Your task to perform on an android device: Open calendar and show me the second week of next month Image 0: 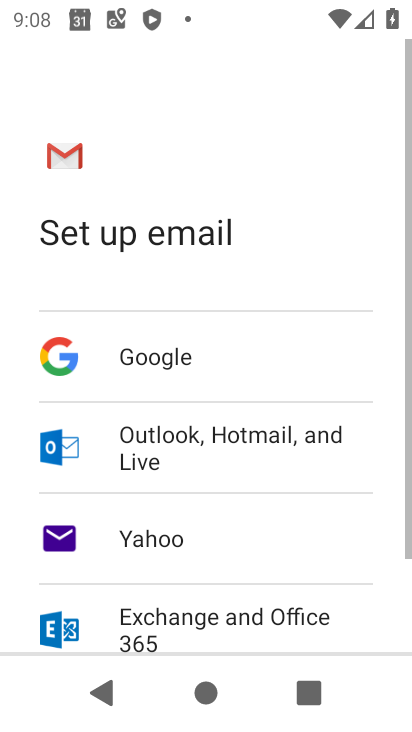
Step 0: press home button
Your task to perform on an android device: Open calendar and show me the second week of next month Image 1: 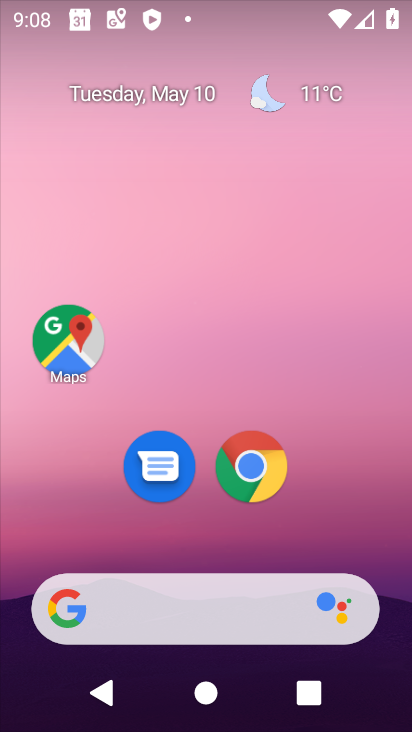
Step 1: drag from (341, 521) to (362, 58)
Your task to perform on an android device: Open calendar and show me the second week of next month Image 2: 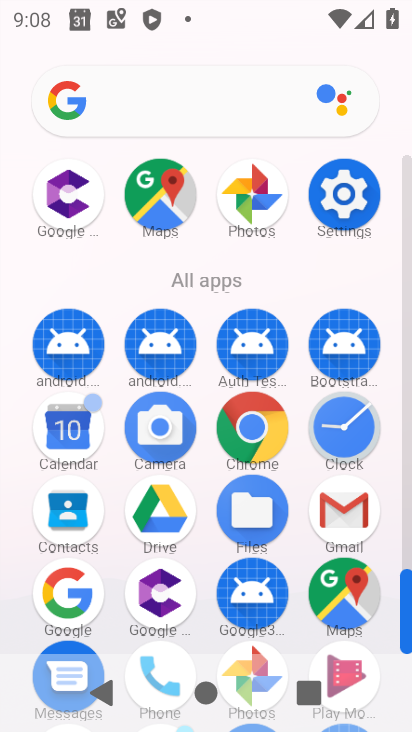
Step 2: click (338, 427)
Your task to perform on an android device: Open calendar and show me the second week of next month Image 3: 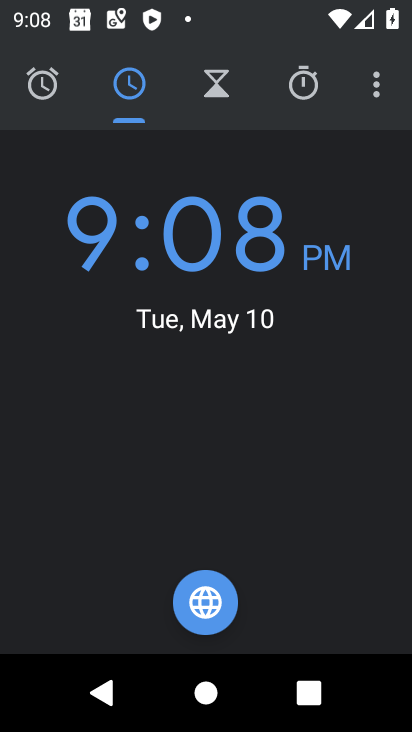
Step 3: click (378, 91)
Your task to perform on an android device: Open calendar and show me the second week of next month Image 4: 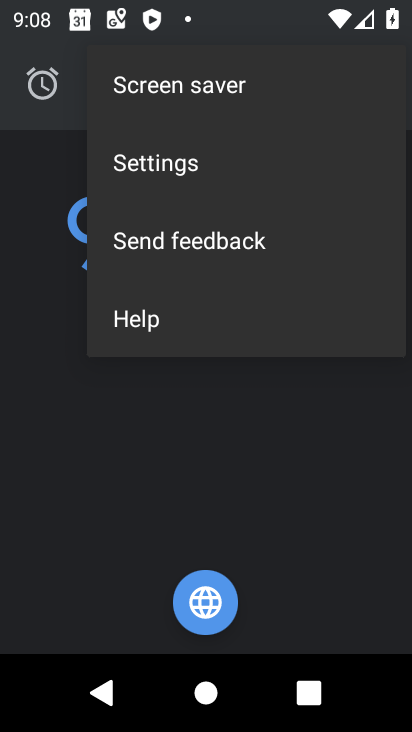
Step 4: click (141, 174)
Your task to perform on an android device: Open calendar and show me the second week of next month Image 5: 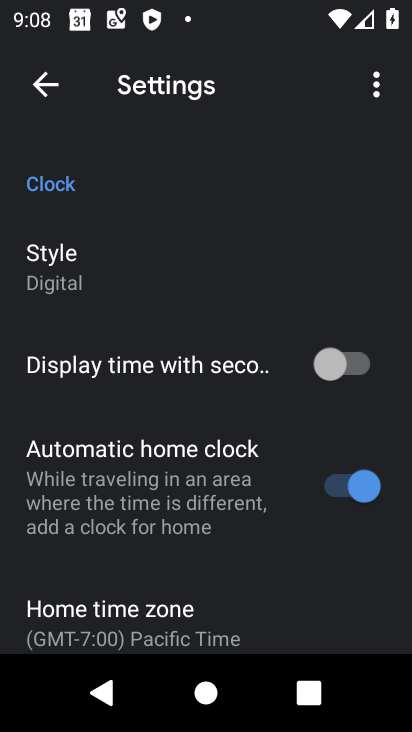
Step 5: click (342, 374)
Your task to perform on an android device: Open calendar and show me the second week of next month Image 6: 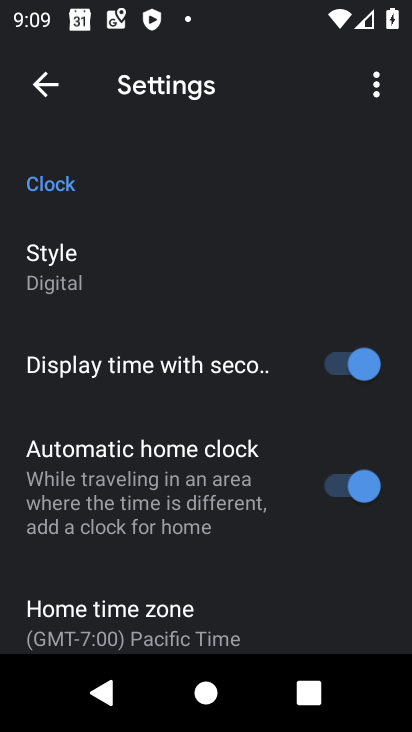
Step 6: task complete